Your task to perform on an android device: Open ESPN.com Image 0: 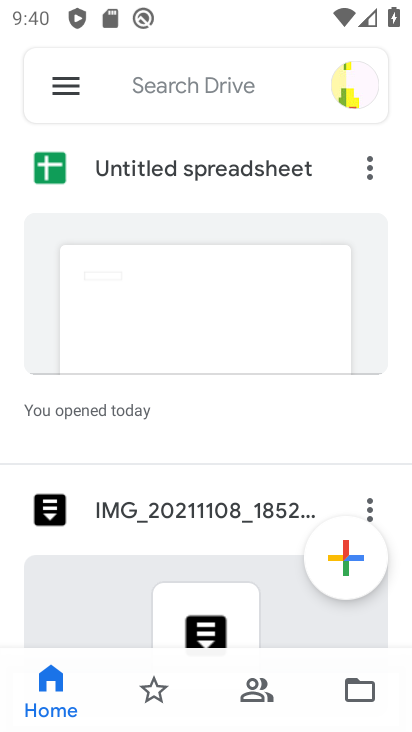
Step 0: press home button
Your task to perform on an android device: Open ESPN.com Image 1: 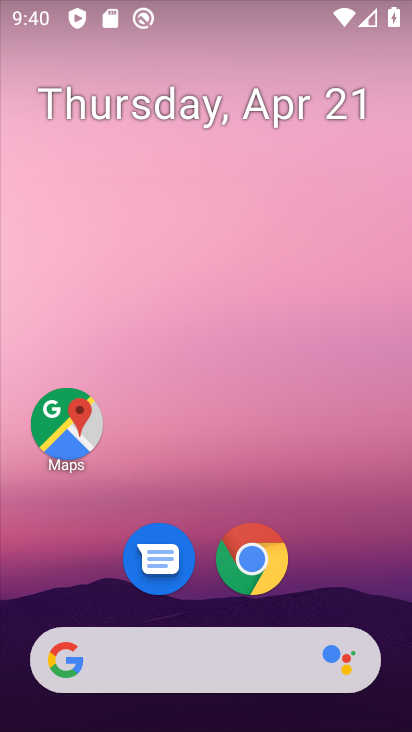
Step 1: drag from (307, 586) to (271, 157)
Your task to perform on an android device: Open ESPN.com Image 2: 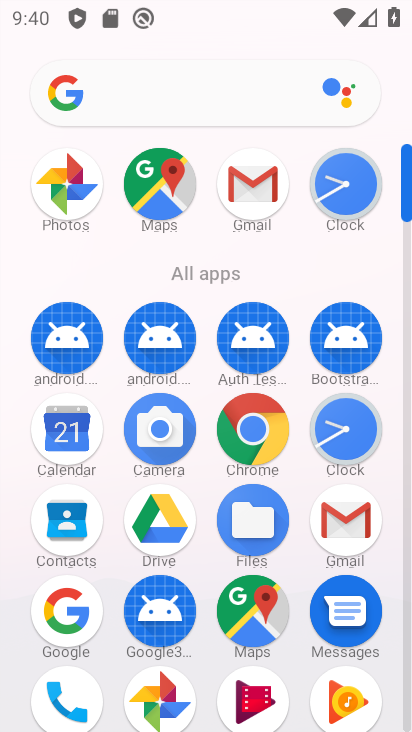
Step 2: click (261, 431)
Your task to perform on an android device: Open ESPN.com Image 3: 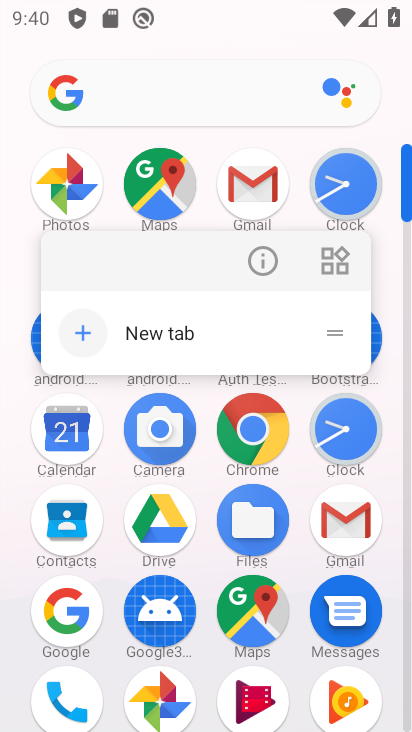
Step 3: click (247, 449)
Your task to perform on an android device: Open ESPN.com Image 4: 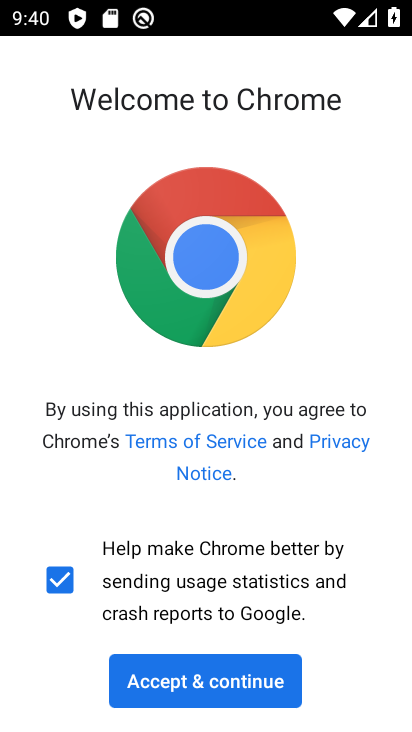
Step 4: click (178, 682)
Your task to perform on an android device: Open ESPN.com Image 5: 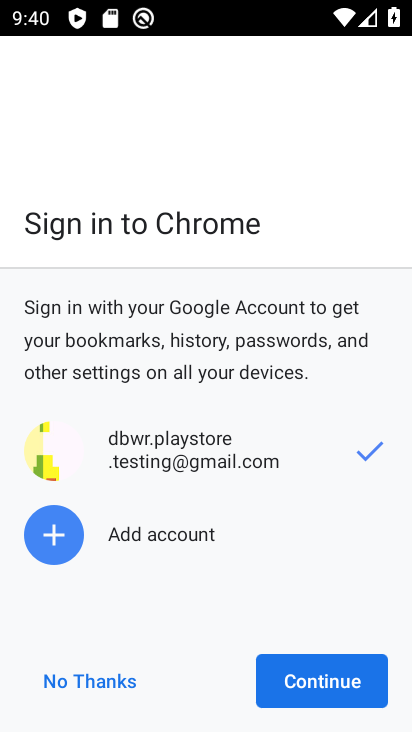
Step 5: click (298, 678)
Your task to perform on an android device: Open ESPN.com Image 6: 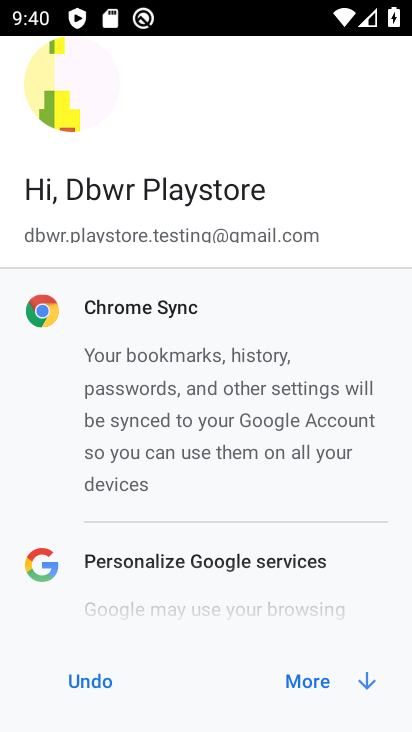
Step 6: click (298, 678)
Your task to perform on an android device: Open ESPN.com Image 7: 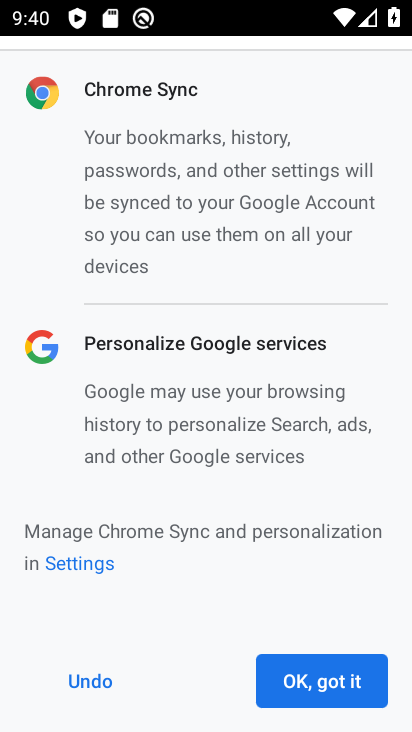
Step 7: click (306, 680)
Your task to perform on an android device: Open ESPN.com Image 8: 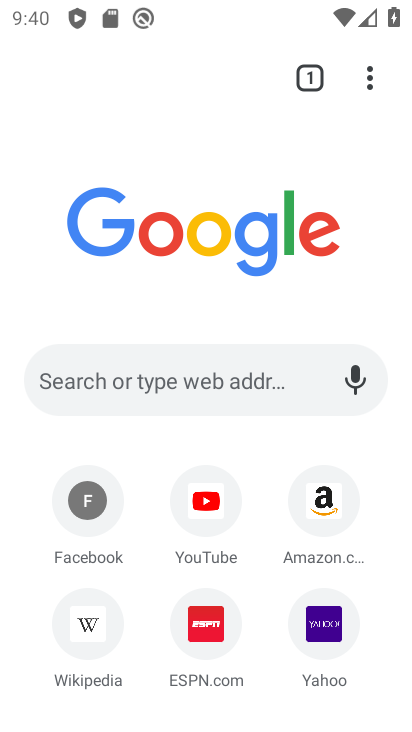
Step 8: click (197, 377)
Your task to perform on an android device: Open ESPN.com Image 9: 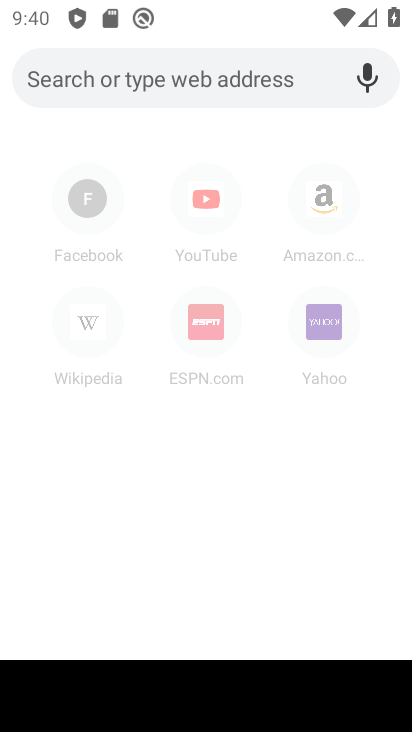
Step 9: type "ESPN.com"
Your task to perform on an android device: Open ESPN.com Image 10: 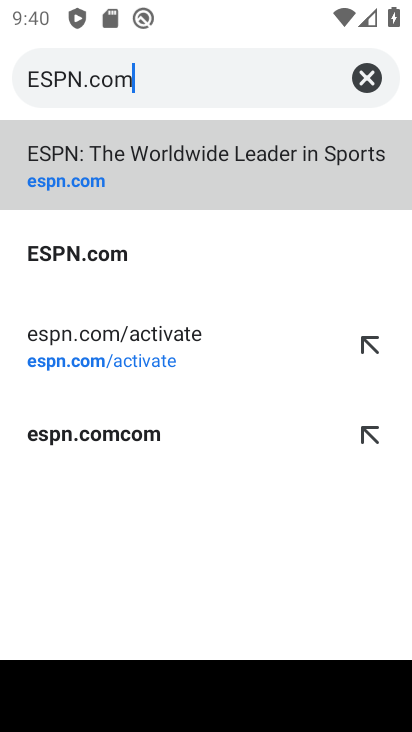
Step 10: click (66, 185)
Your task to perform on an android device: Open ESPN.com Image 11: 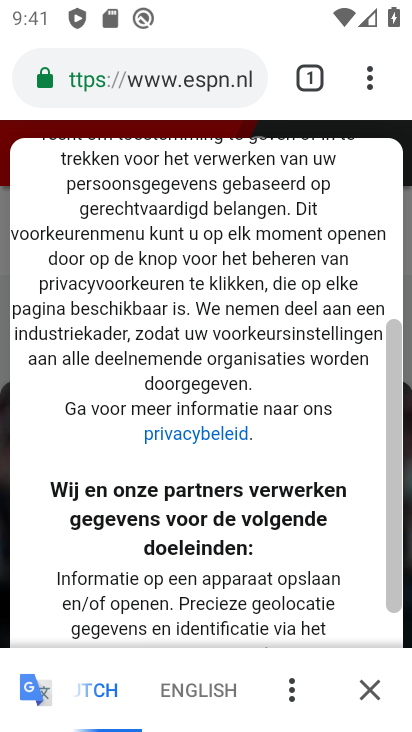
Step 11: task complete